Your task to perform on an android device: open a new tab in the chrome app Image 0: 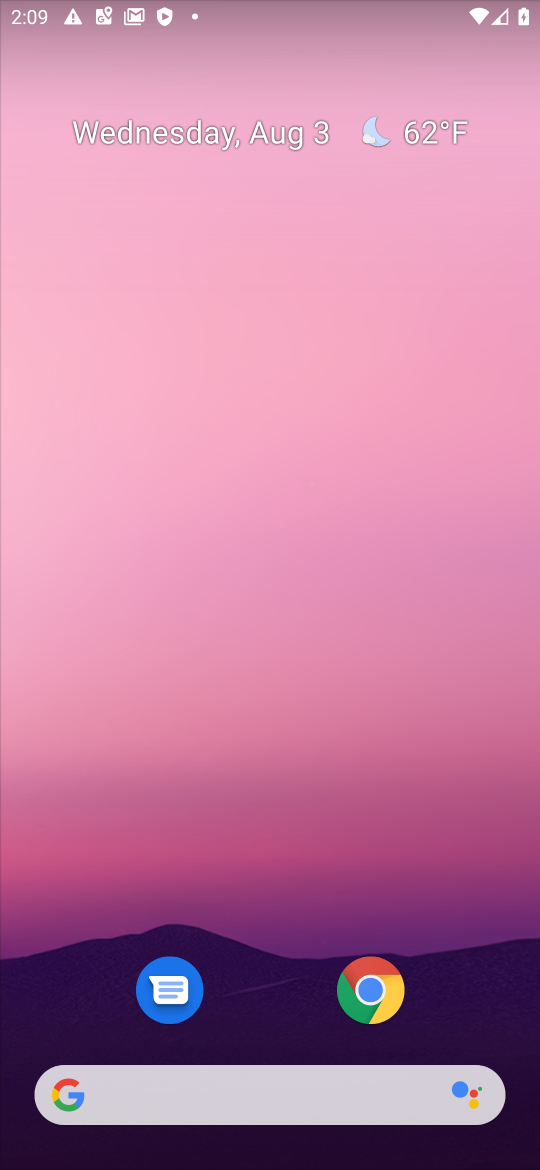
Step 0: click (367, 1000)
Your task to perform on an android device: open a new tab in the chrome app Image 1: 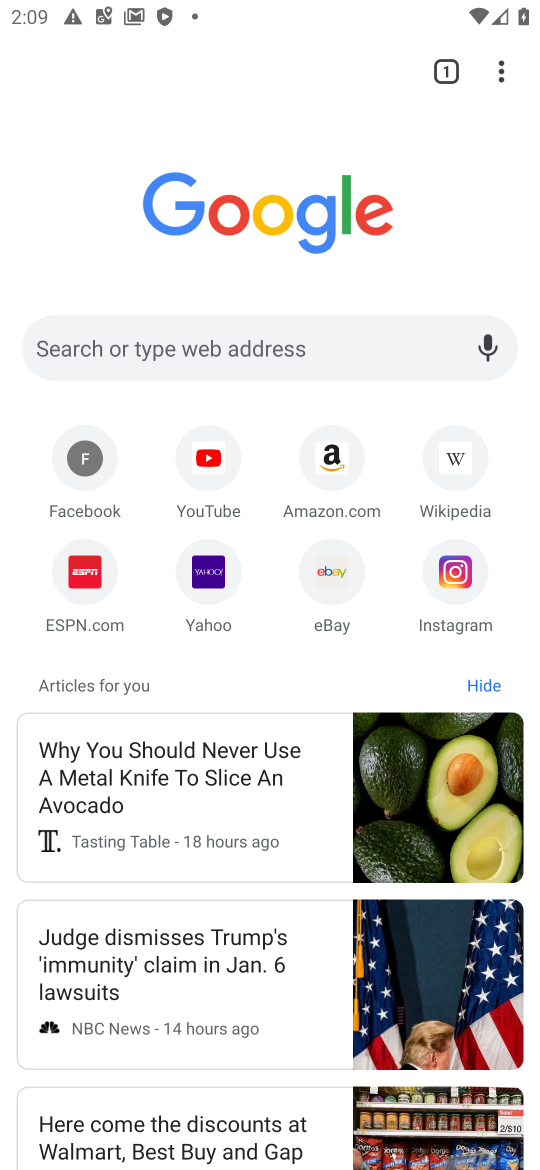
Step 1: click (493, 76)
Your task to perform on an android device: open a new tab in the chrome app Image 2: 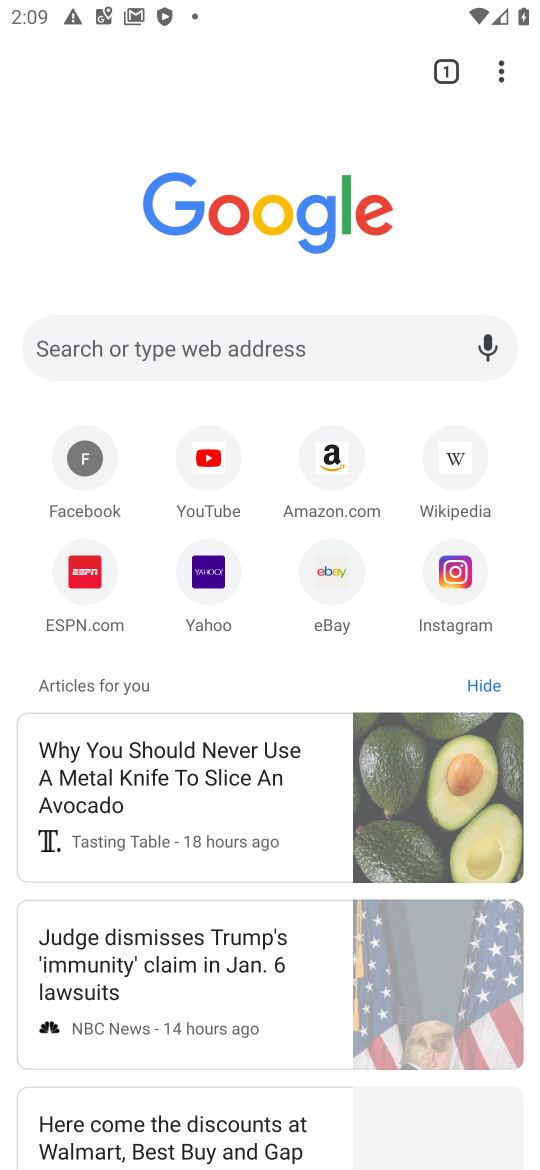
Step 2: click (496, 77)
Your task to perform on an android device: open a new tab in the chrome app Image 3: 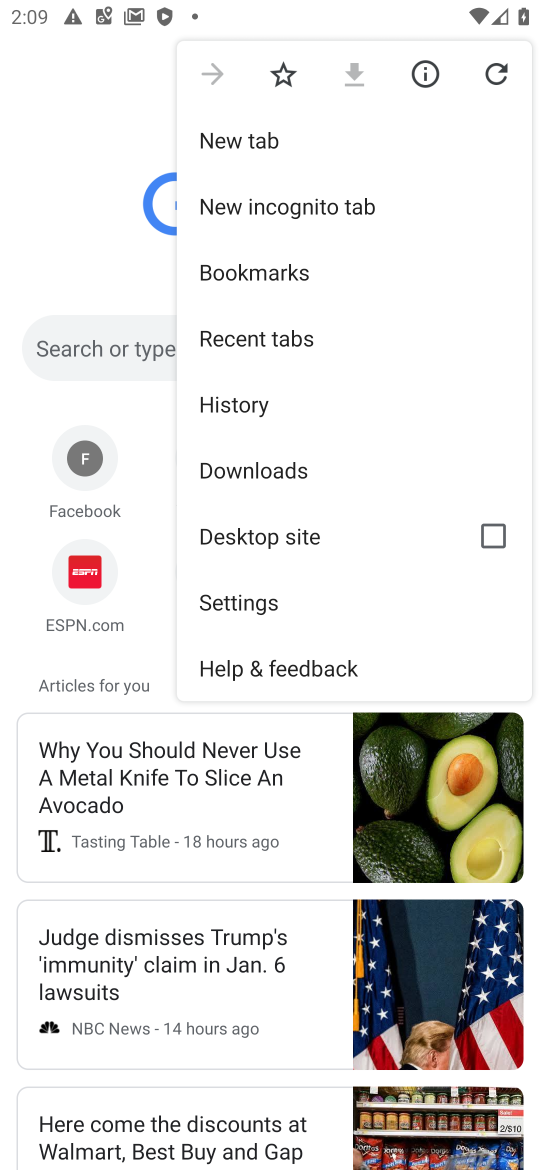
Step 3: click (270, 147)
Your task to perform on an android device: open a new tab in the chrome app Image 4: 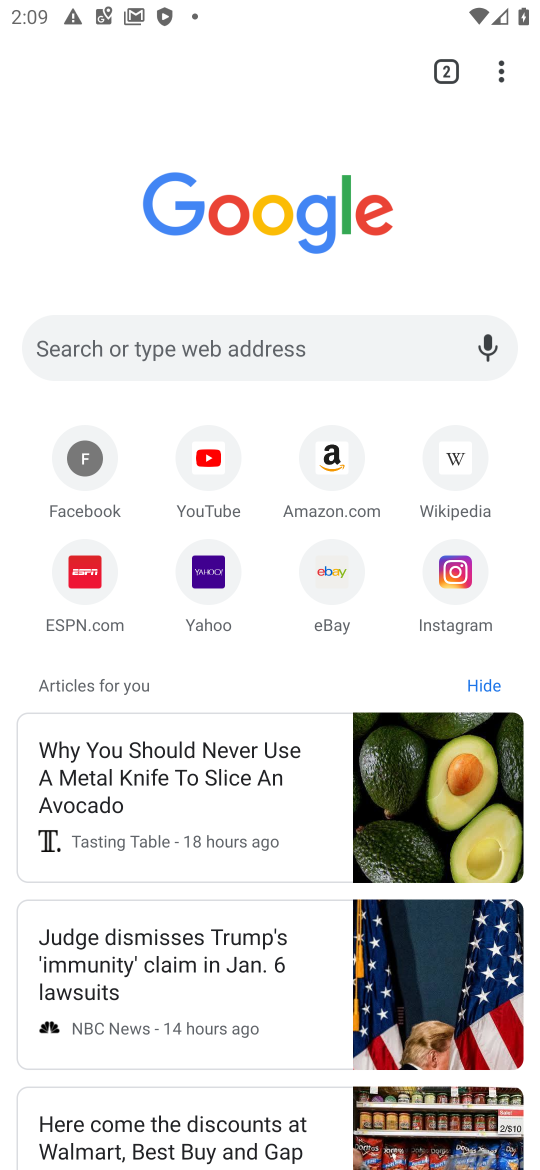
Step 4: task complete